Your task to perform on an android device: Open accessibility settings Image 0: 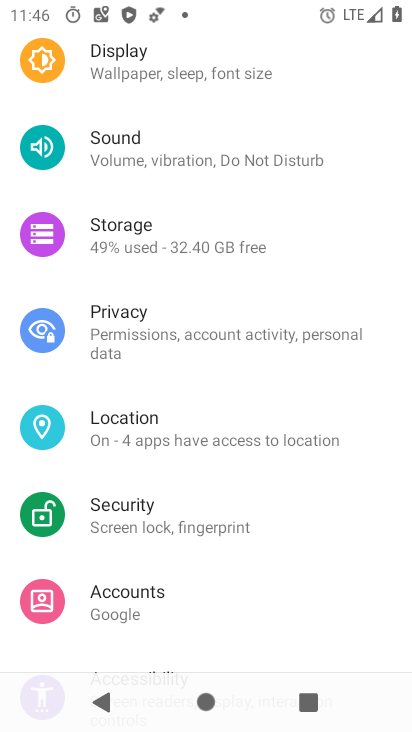
Step 0: drag from (287, 460) to (252, 12)
Your task to perform on an android device: Open accessibility settings Image 1: 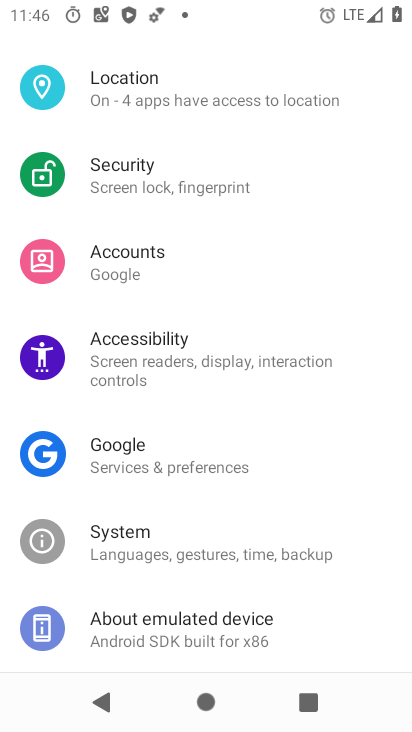
Step 1: click (184, 346)
Your task to perform on an android device: Open accessibility settings Image 2: 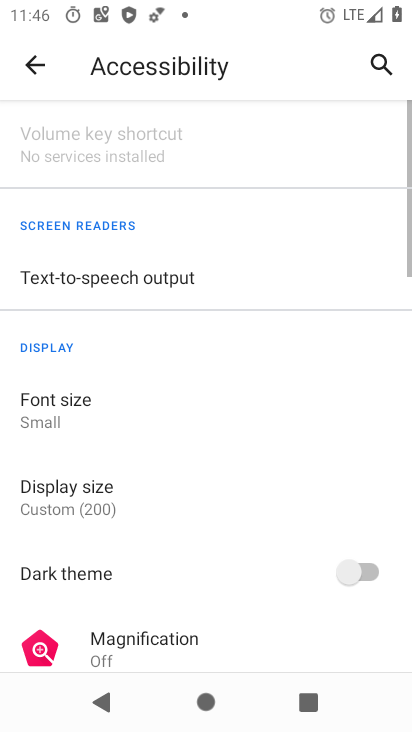
Step 2: task complete